Your task to perform on an android device: turn on bluetooth scan Image 0: 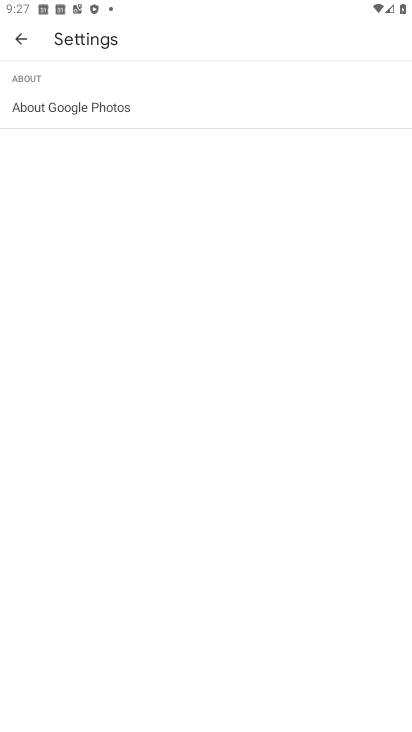
Step 0: press home button
Your task to perform on an android device: turn on bluetooth scan Image 1: 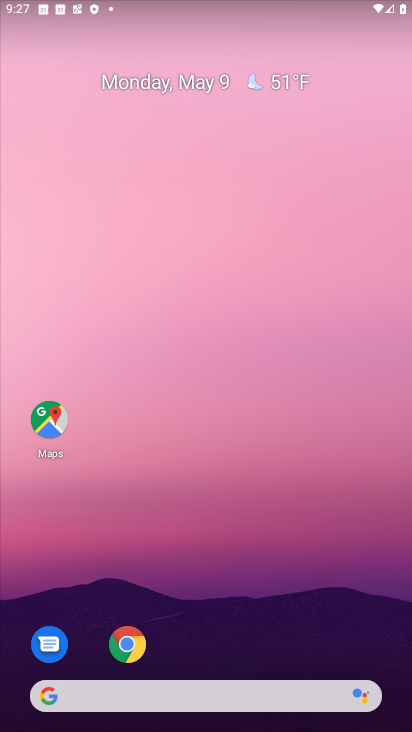
Step 1: drag from (232, 673) to (123, 35)
Your task to perform on an android device: turn on bluetooth scan Image 2: 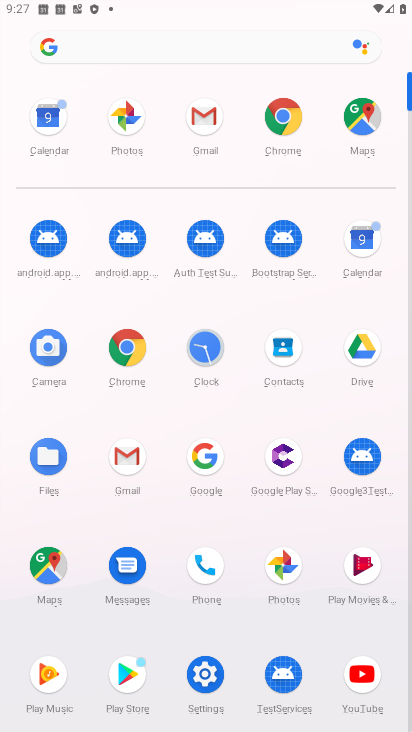
Step 2: click (209, 671)
Your task to perform on an android device: turn on bluetooth scan Image 3: 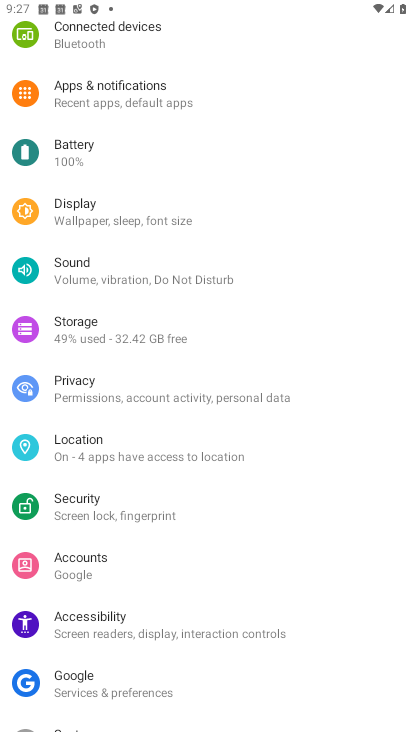
Step 3: drag from (84, 111) to (106, 490)
Your task to perform on an android device: turn on bluetooth scan Image 4: 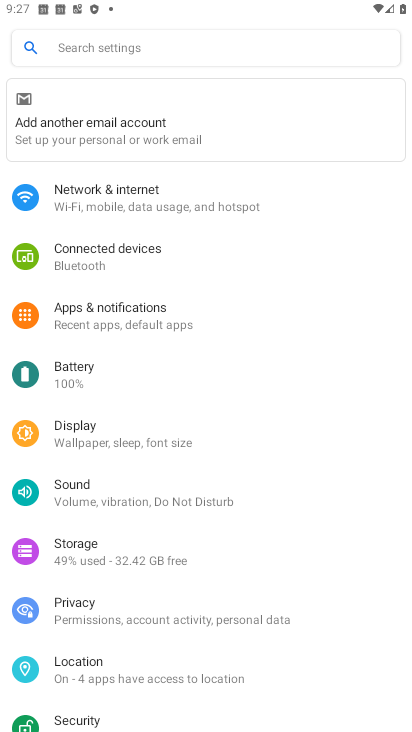
Step 4: click (80, 688)
Your task to perform on an android device: turn on bluetooth scan Image 5: 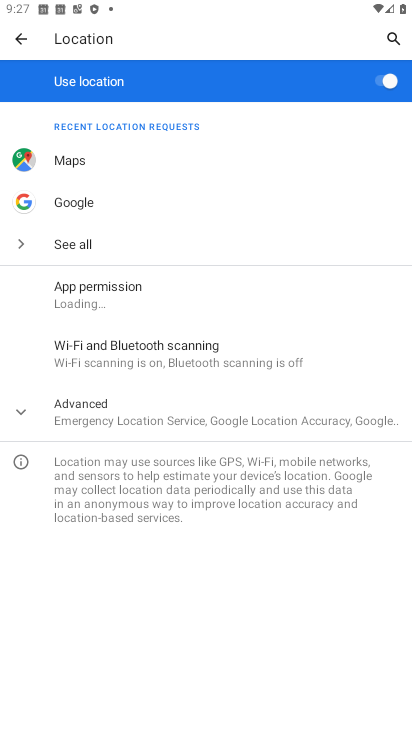
Step 5: click (129, 336)
Your task to perform on an android device: turn on bluetooth scan Image 6: 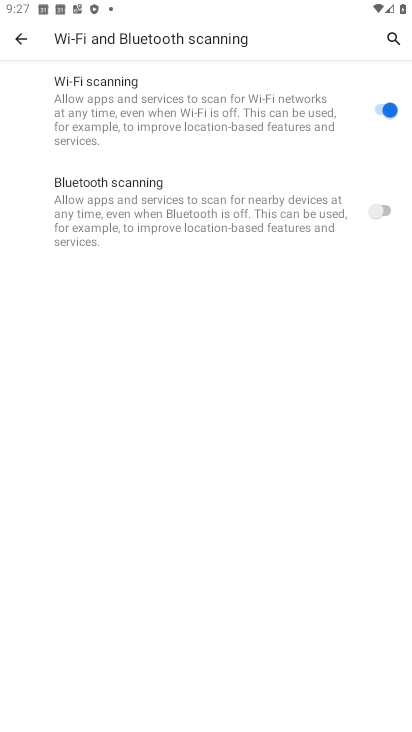
Step 6: click (380, 212)
Your task to perform on an android device: turn on bluetooth scan Image 7: 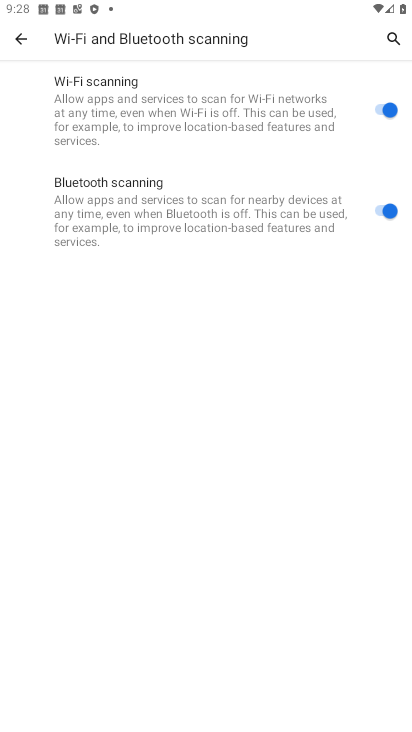
Step 7: task complete